Your task to perform on an android device: turn on location history Image 0: 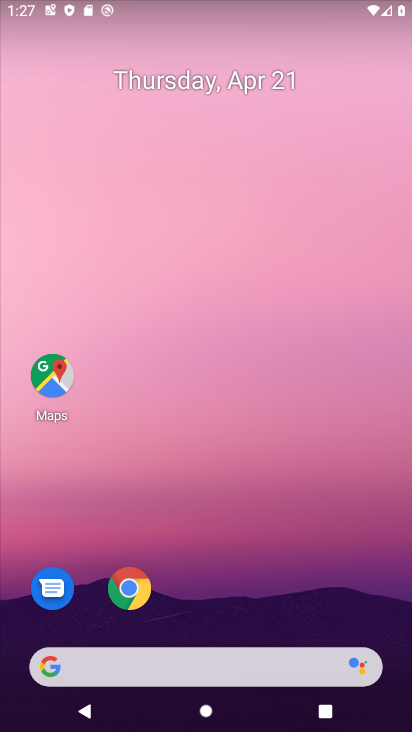
Step 0: drag from (261, 628) to (258, 120)
Your task to perform on an android device: turn on location history Image 1: 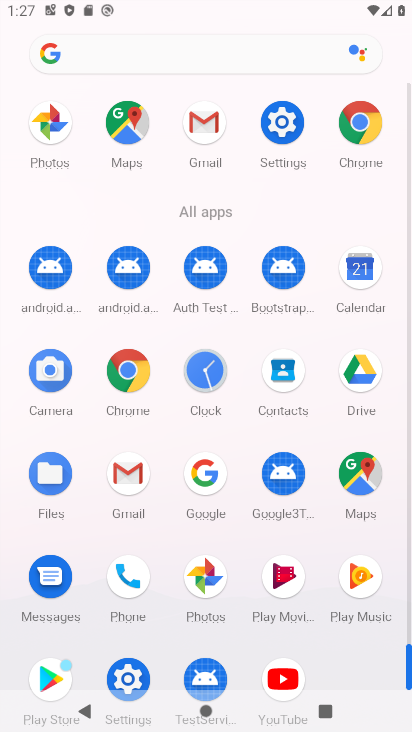
Step 1: click (286, 139)
Your task to perform on an android device: turn on location history Image 2: 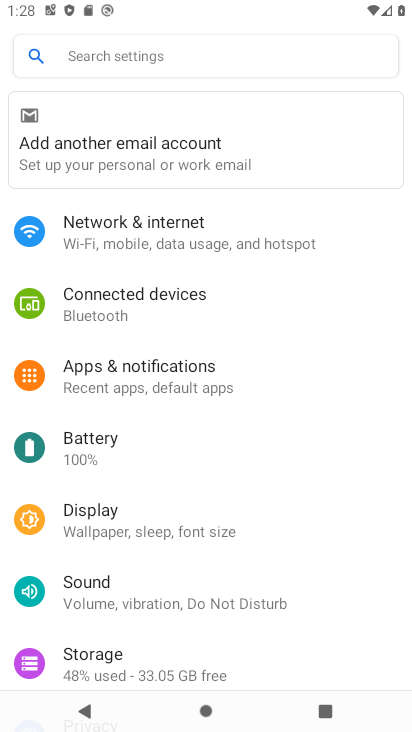
Step 2: drag from (153, 546) to (191, 351)
Your task to perform on an android device: turn on location history Image 3: 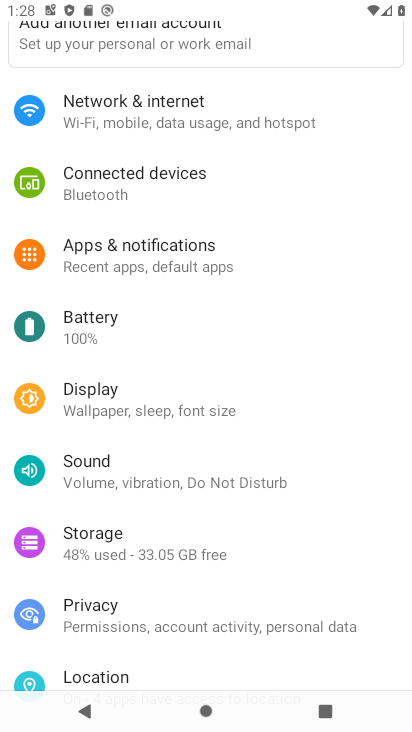
Step 3: click (190, 226)
Your task to perform on an android device: turn on location history Image 4: 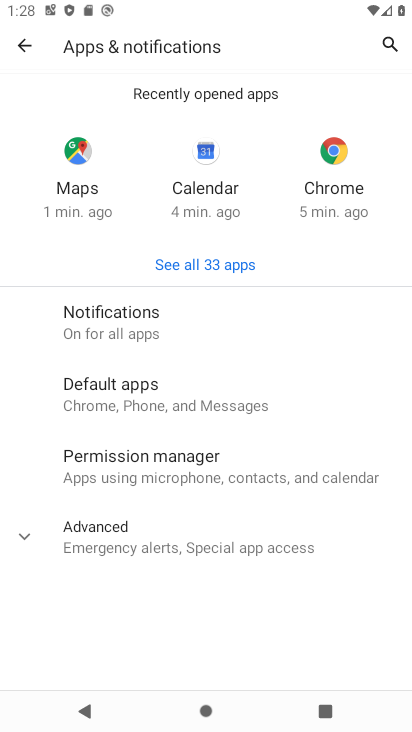
Step 4: click (27, 49)
Your task to perform on an android device: turn on location history Image 5: 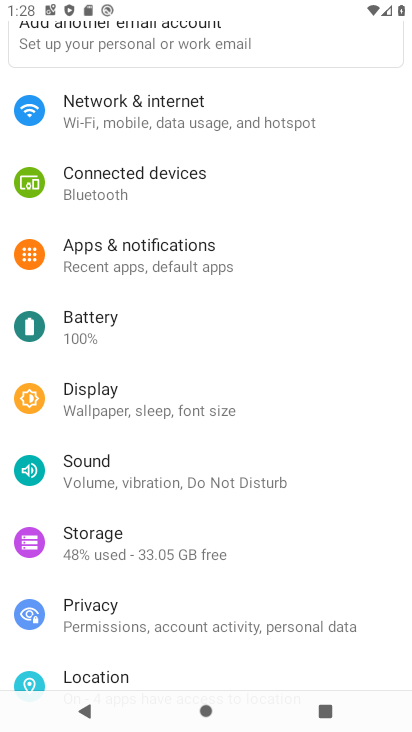
Step 5: drag from (135, 509) to (167, 99)
Your task to perform on an android device: turn on location history Image 6: 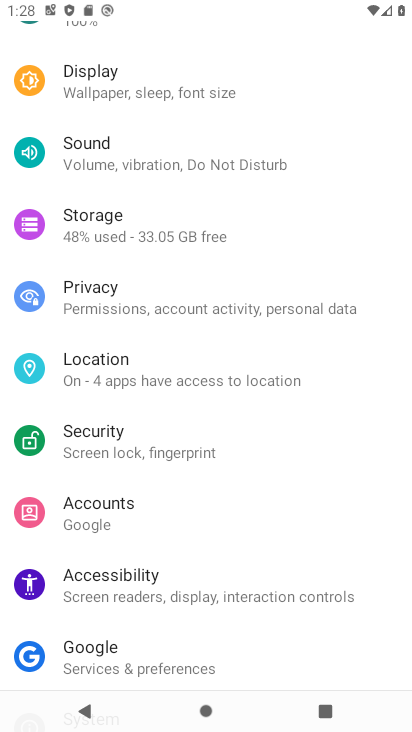
Step 6: click (189, 386)
Your task to perform on an android device: turn on location history Image 7: 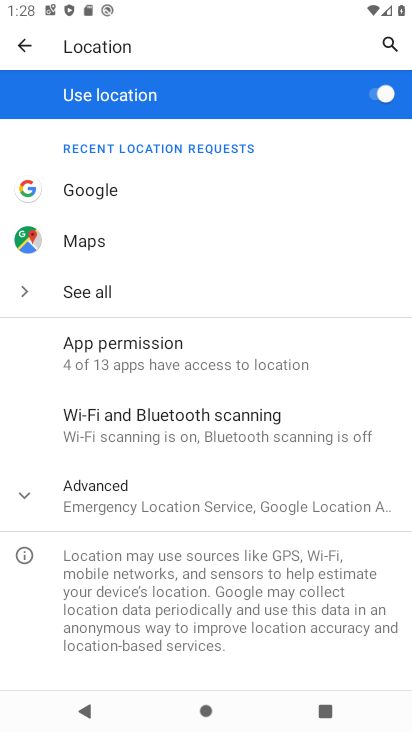
Step 7: click (216, 504)
Your task to perform on an android device: turn on location history Image 8: 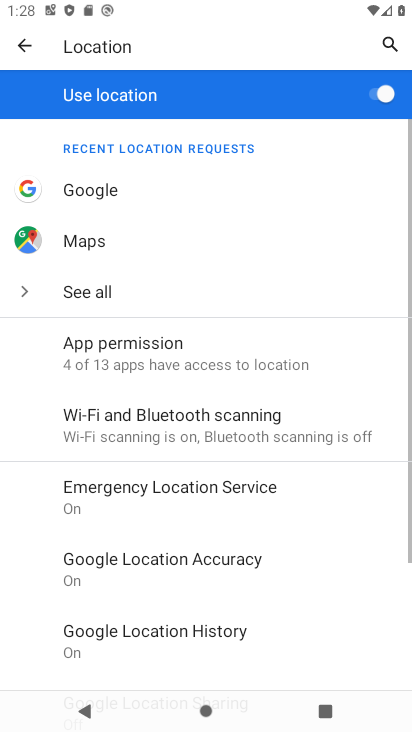
Step 8: drag from (226, 593) to (283, 339)
Your task to perform on an android device: turn on location history Image 9: 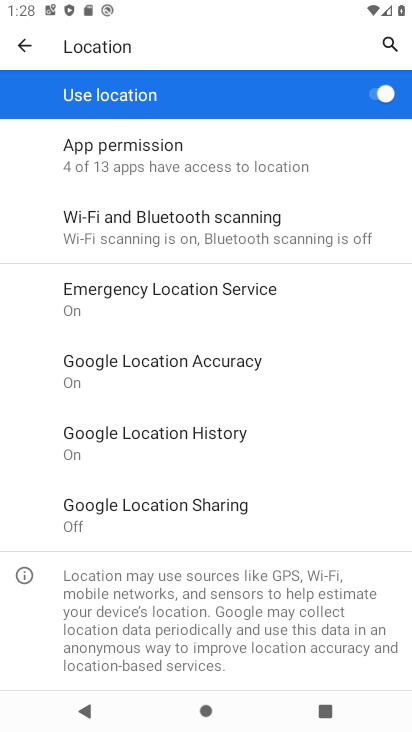
Step 9: click (246, 436)
Your task to perform on an android device: turn on location history Image 10: 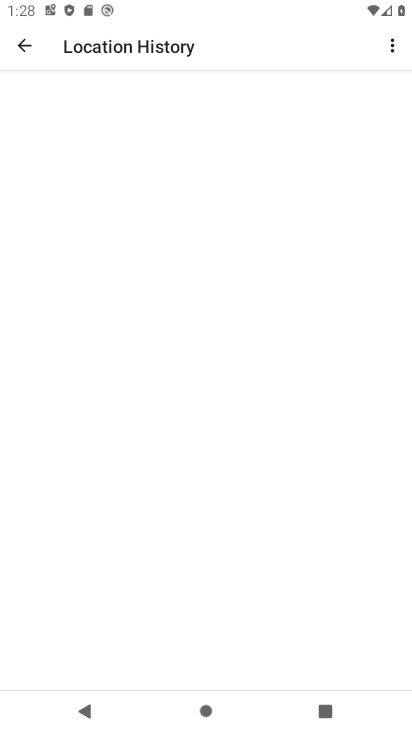
Step 10: task complete